Your task to perform on an android device: turn off translation in the chrome app Image 0: 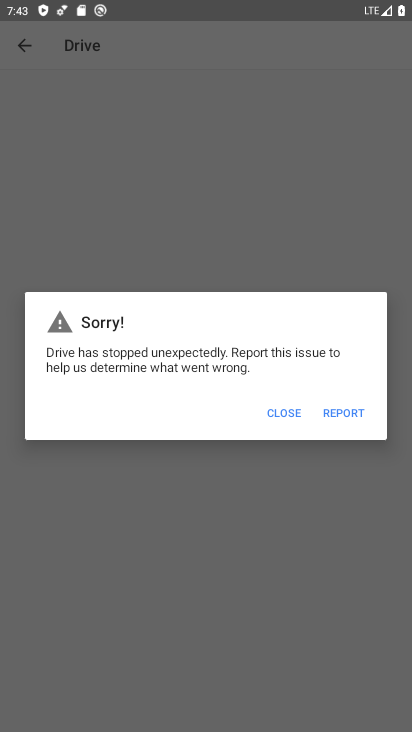
Step 0: press home button
Your task to perform on an android device: turn off translation in the chrome app Image 1: 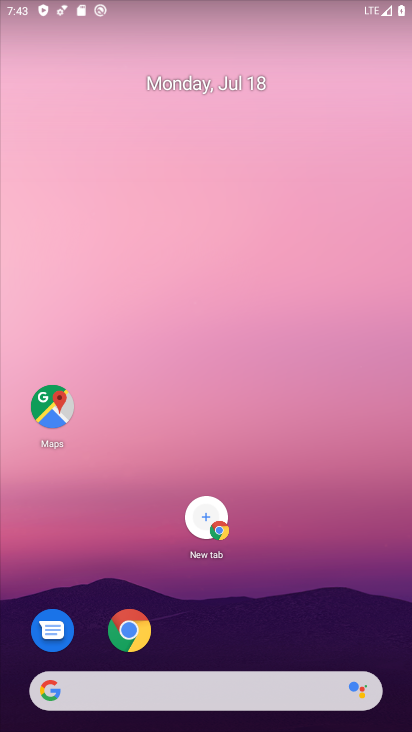
Step 1: drag from (154, 676) to (212, 173)
Your task to perform on an android device: turn off translation in the chrome app Image 2: 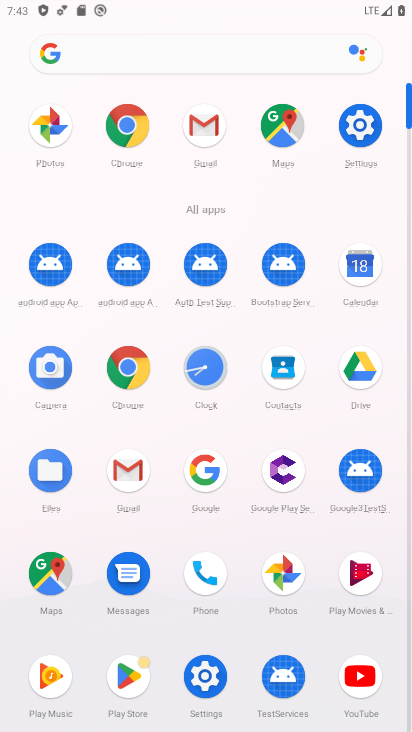
Step 2: click (127, 368)
Your task to perform on an android device: turn off translation in the chrome app Image 3: 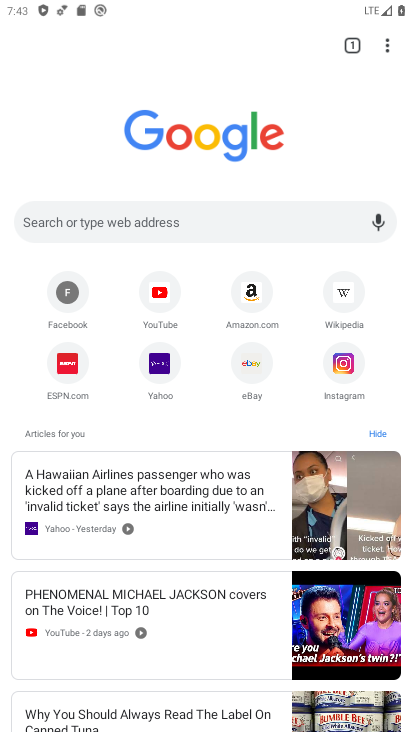
Step 3: click (387, 44)
Your task to perform on an android device: turn off translation in the chrome app Image 4: 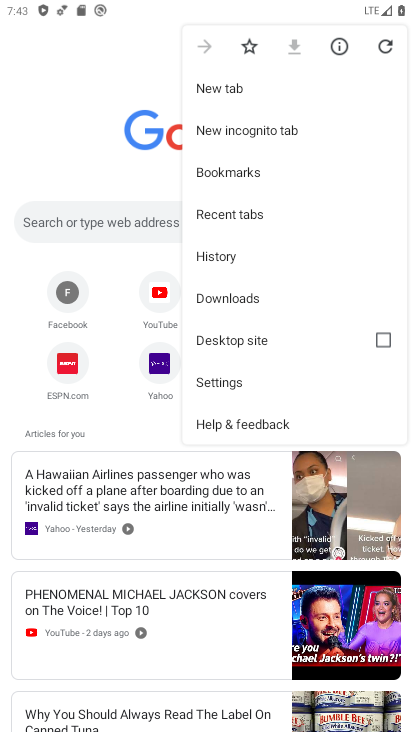
Step 4: click (208, 381)
Your task to perform on an android device: turn off translation in the chrome app Image 5: 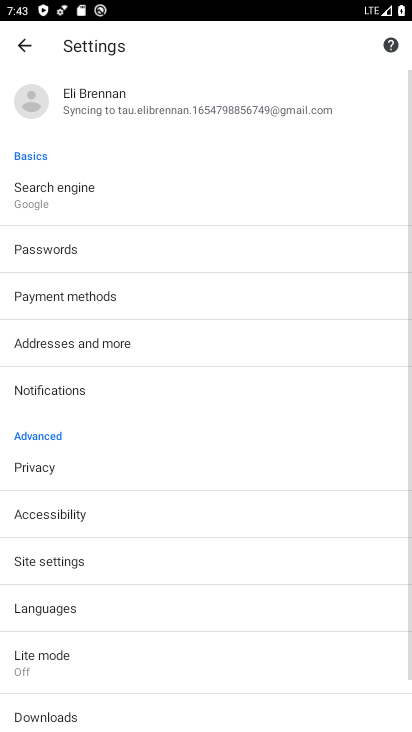
Step 5: click (49, 613)
Your task to perform on an android device: turn off translation in the chrome app Image 6: 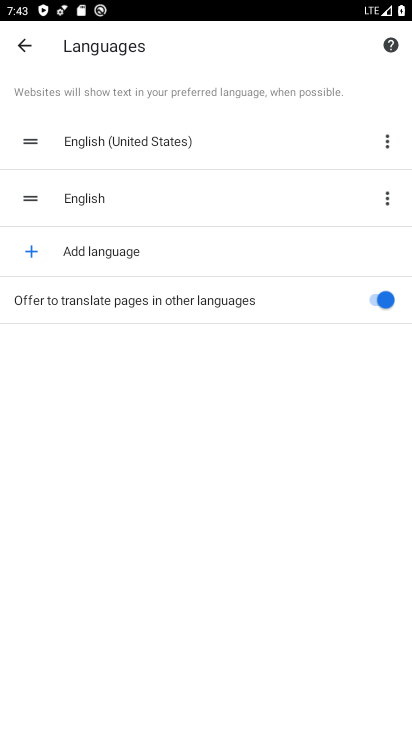
Step 6: click (378, 299)
Your task to perform on an android device: turn off translation in the chrome app Image 7: 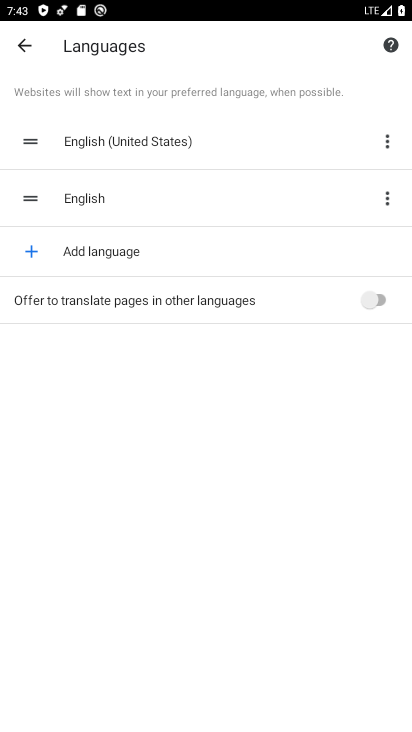
Step 7: task complete